Your task to perform on an android device: turn pop-ups off in chrome Image 0: 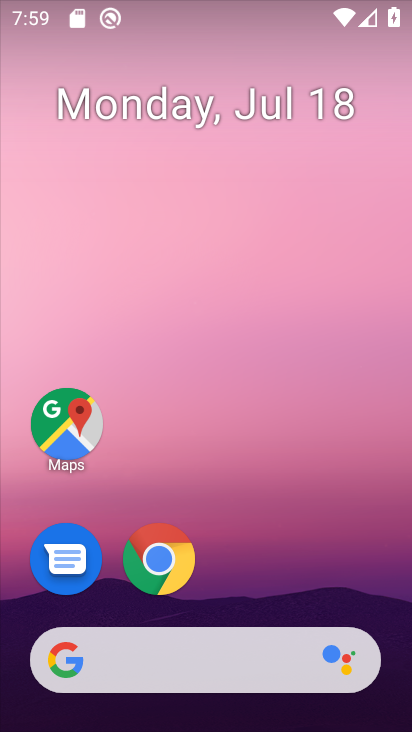
Step 0: drag from (344, 566) to (391, 269)
Your task to perform on an android device: turn pop-ups off in chrome Image 1: 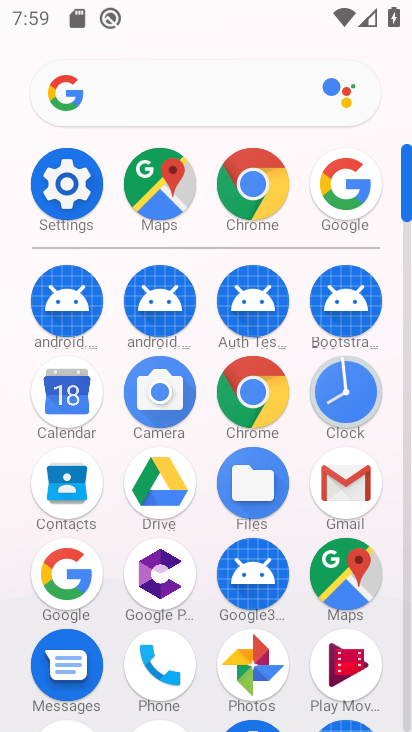
Step 1: click (271, 394)
Your task to perform on an android device: turn pop-ups off in chrome Image 2: 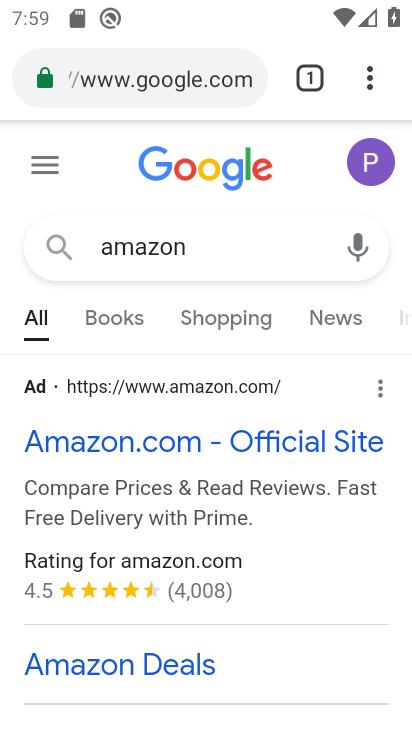
Step 2: click (369, 81)
Your task to perform on an android device: turn pop-ups off in chrome Image 3: 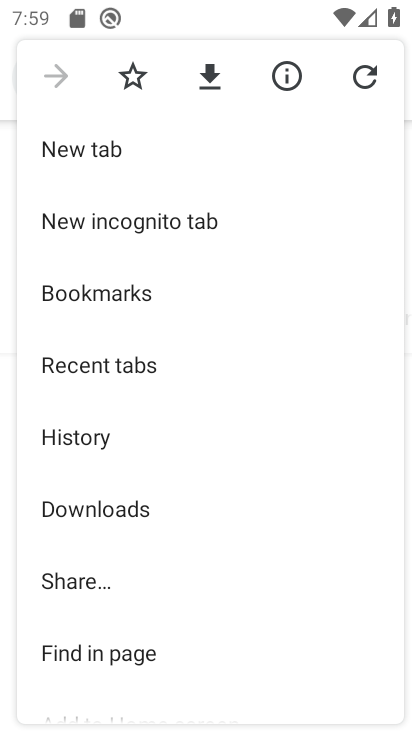
Step 3: drag from (311, 526) to (323, 448)
Your task to perform on an android device: turn pop-ups off in chrome Image 4: 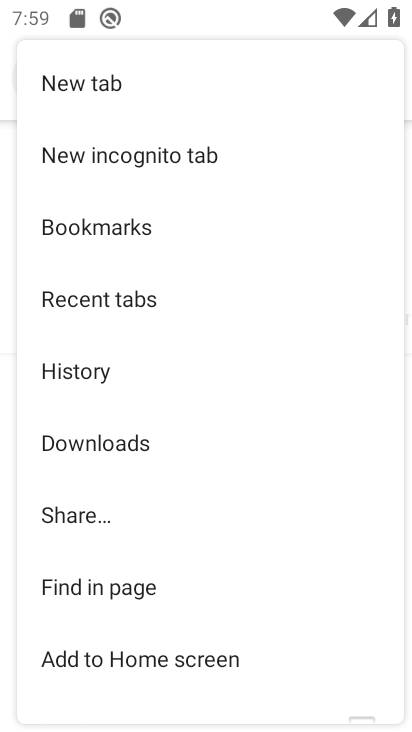
Step 4: drag from (297, 535) to (306, 398)
Your task to perform on an android device: turn pop-ups off in chrome Image 5: 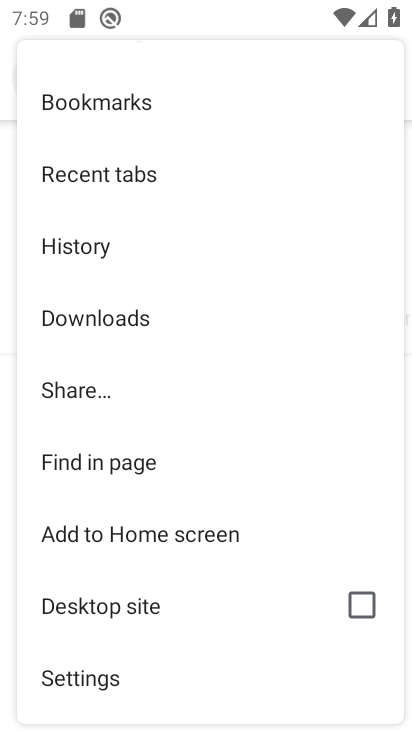
Step 5: drag from (281, 546) to (294, 444)
Your task to perform on an android device: turn pop-ups off in chrome Image 6: 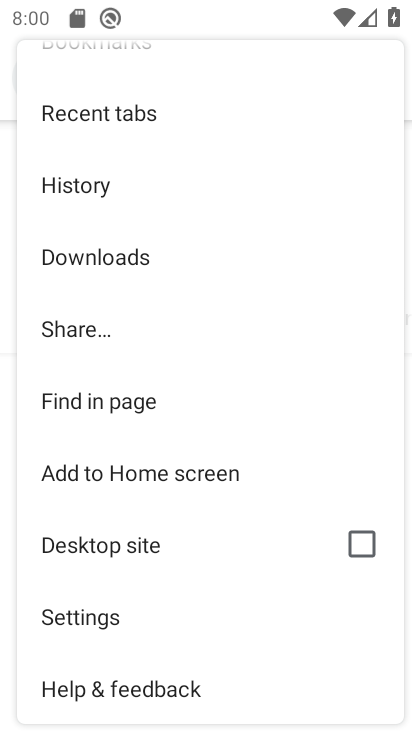
Step 6: click (165, 617)
Your task to perform on an android device: turn pop-ups off in chrome Image 7: 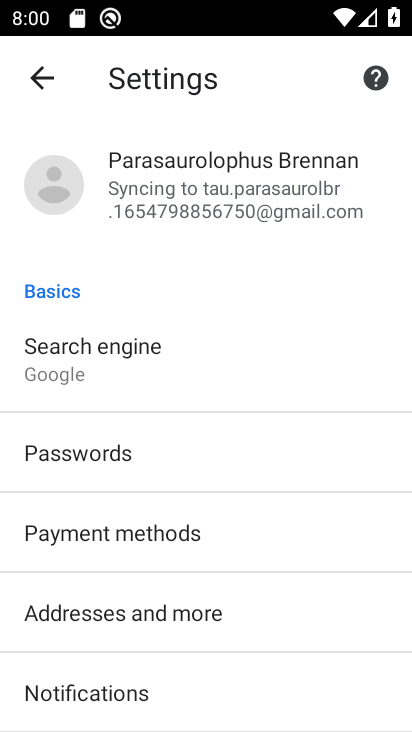
Step 7: drag from (293, 601) to (310, 429)
Your task to perform on an android device: turn pop-ups off in chrome Image 8: 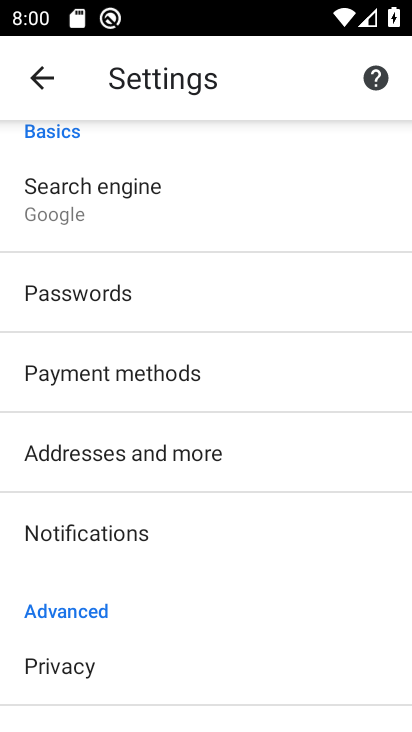
Step 8: drag from (291, 597) to (306, 454)
Your task to perform on an android device: turn pop-ups off in chrome Image 9: 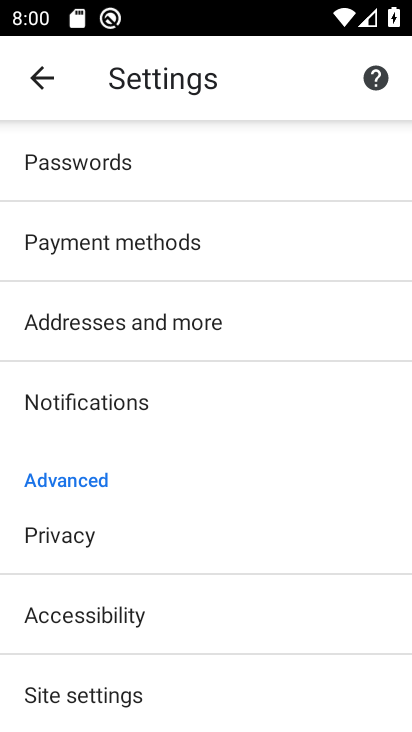
Step 9: drag from (290, 634) to (289, 539)
Your task to perform on an android device: turn pop-ups off in chrome Image 10: 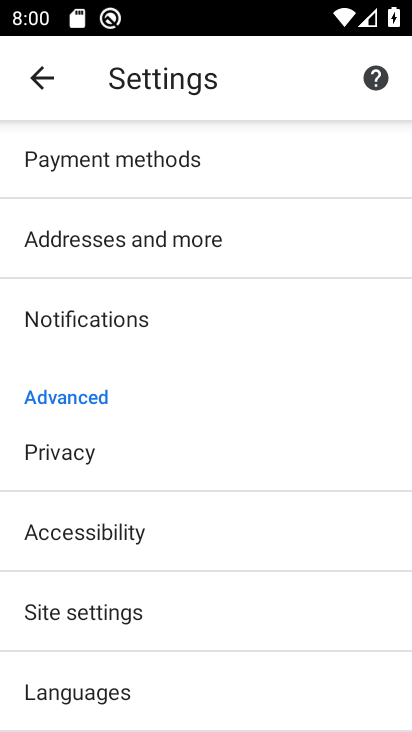
Step 10: click (277, 596)
Your task to perform on an android device: turn pop-ups off in chrome Image 11: 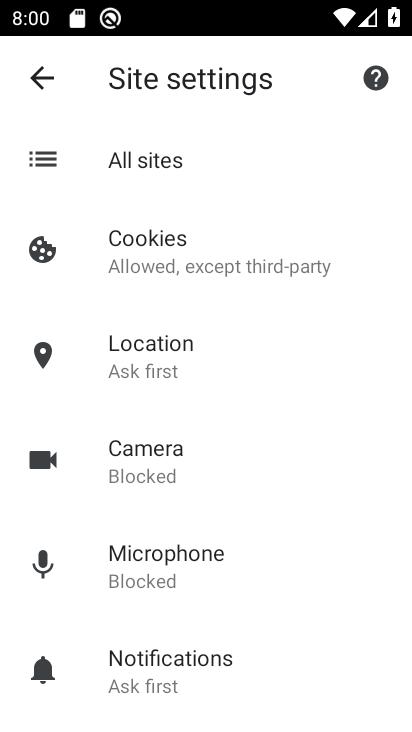
Step 11: drag from (327, 603) to (327, 506)
Your task to perform on an android device: turn pop-ups off in chrome Image 12: 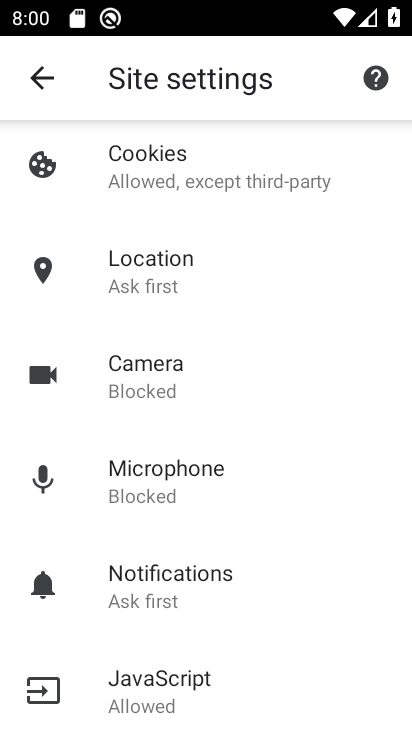
Step 12: drag from (311, 620) to (318, 520)
Your task to perform on an android device: turn pop-ups off in chrome Image 13: 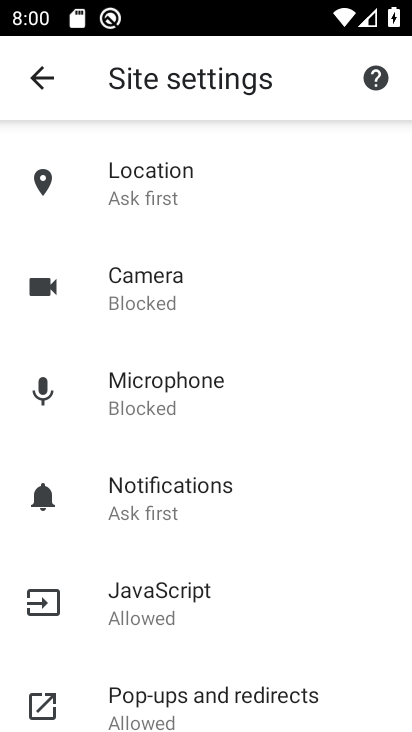
Step 13: drag from (296, 606) to (313, 500)
Your task to perform on an android device: turn pop-ups off in chrome Image 14: 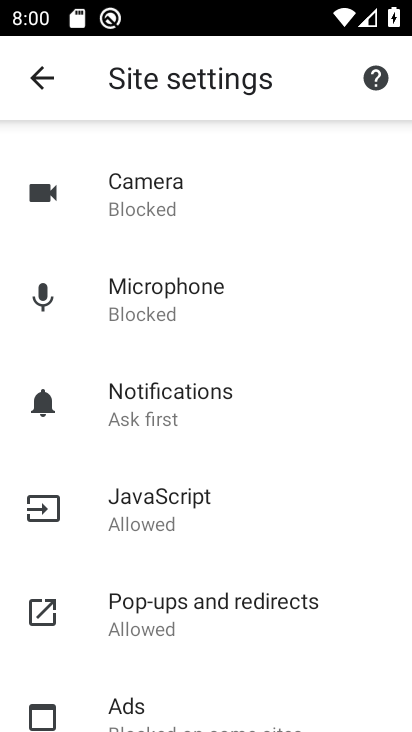
Step 14: click (301, 609)
Your task to perform on an android device: turn pop-ups off in chrome Image 15: 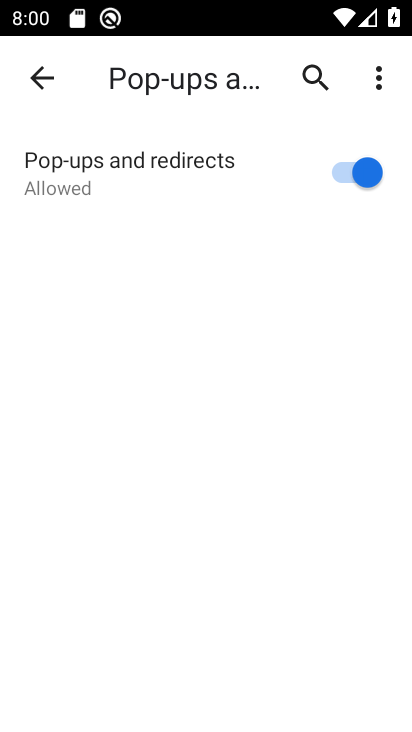
Step 15: click (363, 177)
Your task to perform on an android device: turn pop-ups off in chrome Image 16: 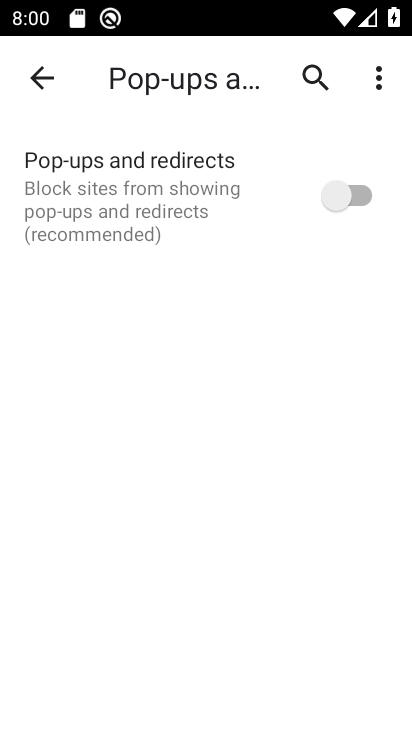
Step 16: task complete